Your task to perform on an android device: change notifications settings Image 0: 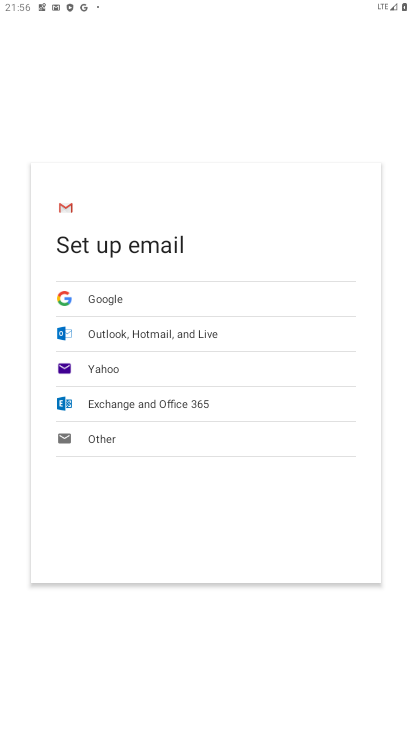
Step 0: press home button
Your task to perform on an android device: change notifications settings Image 1: 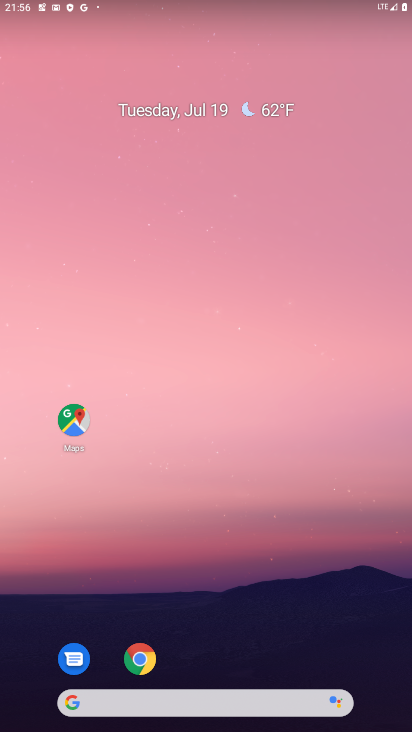
Step 1: drag from (222, 615) to (242, 48)
Your task to perform on an android device: change notifications settings Image 2: 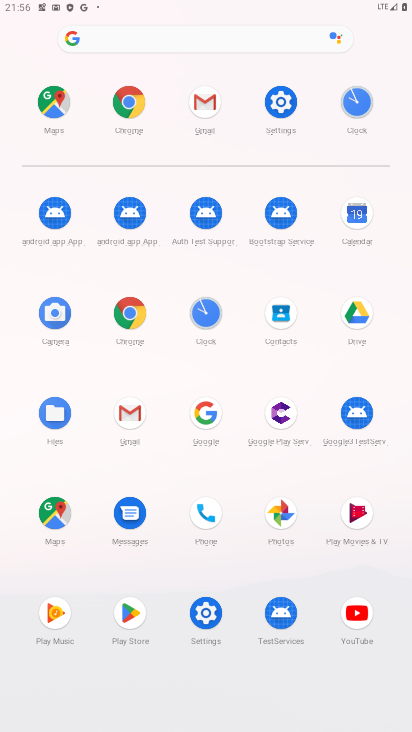
Step 2: click (268, 105)
Your task to perform on an android device: change notifications settings Image 3: 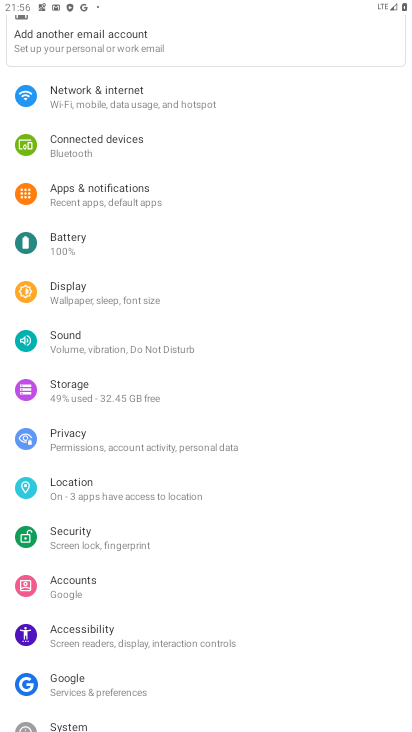
Step 3: click (102, 186)
Your task to perform on an android device: change notifications settings Image 4: 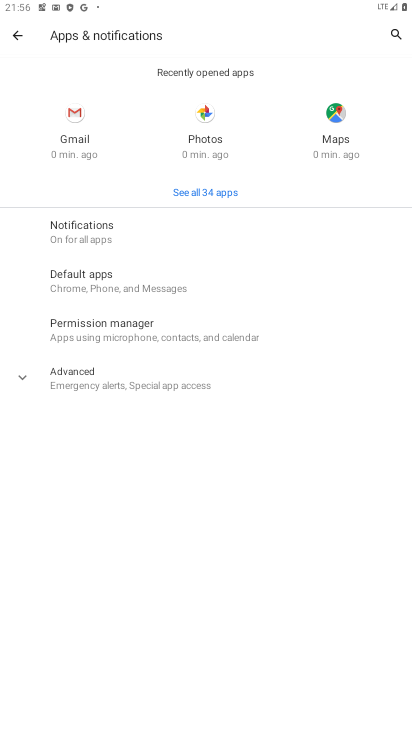
Step 4: click (74, 215)
Your task to perform on an android device: change notifications settings Image 5: 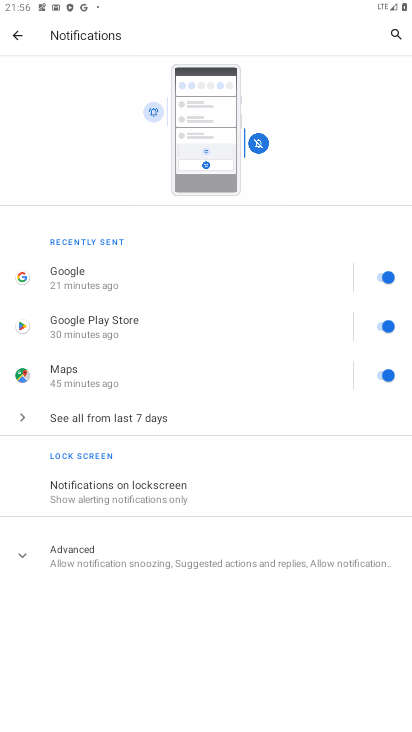
Step 5: click (396, 269)
Your task to perform on an android device: change notifications settings Image 6: 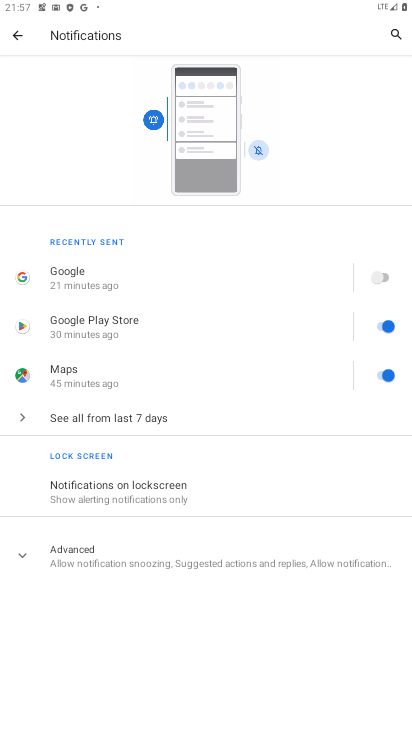
Step 6: task complete